Your task to perform on an android device: Open Youtube and go to the subscriptions tab Image 0: 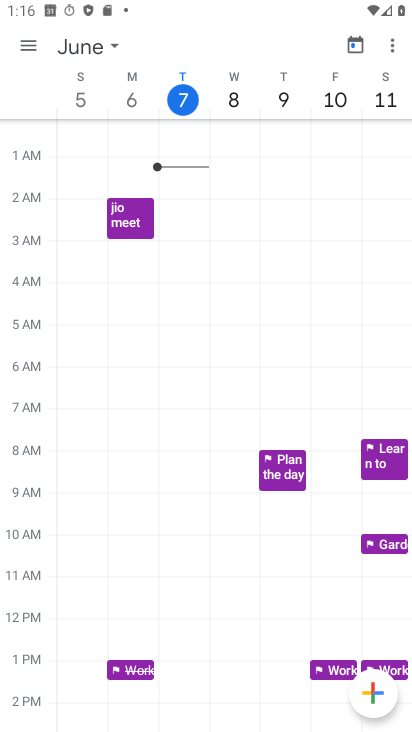
Step 0: press home button
Your task to perform on an android device: Open Youtube and go to the subscriptions tab Image 1: 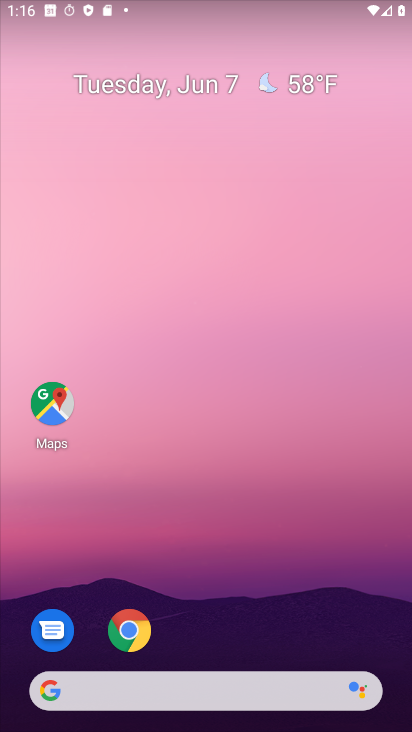
Step 1: drag from (205, 646) to (293, 95)
Your task to perform on an android device: Open Youtube and go to the subscriptions tab Image 2: 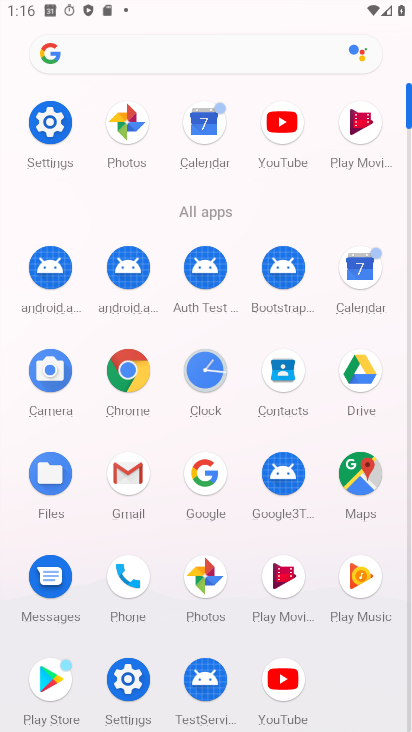
Step 2: click (284, 681)
Your task to perform on an android device: Open Youtube and go to the subscriptions tab Image 3: 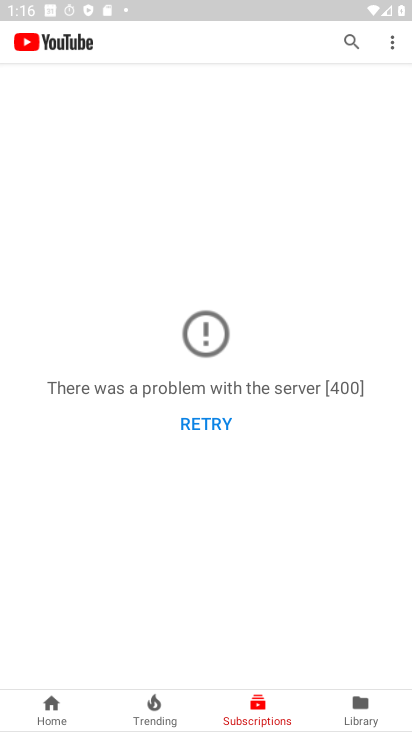
Step 3: click (222, 419)
Your task to perform on an android device: Open Youtube and go to the subscriptions tab Image 4: 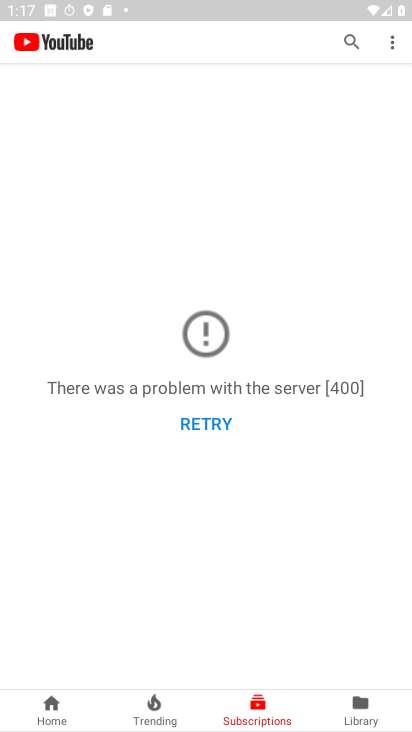
Step 4: task complete